Your task to perform on an android device: turn off priority inbox in the gmail app Image 0: 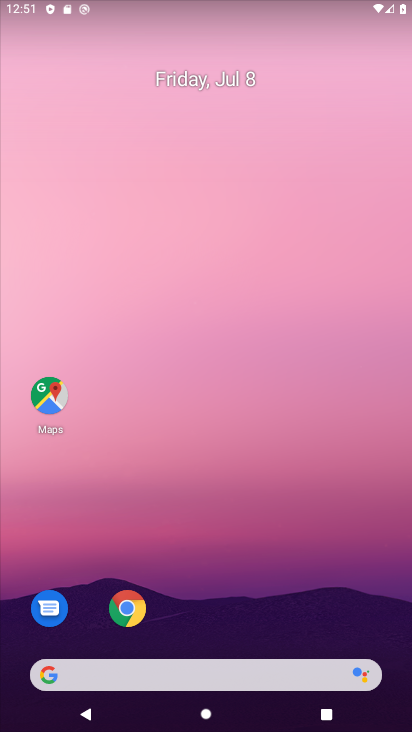
Step 0: drag from (238, 623) to (252, 117)
Your task to perform on an android device: turn off priority inbox in the gmail app Image 1: 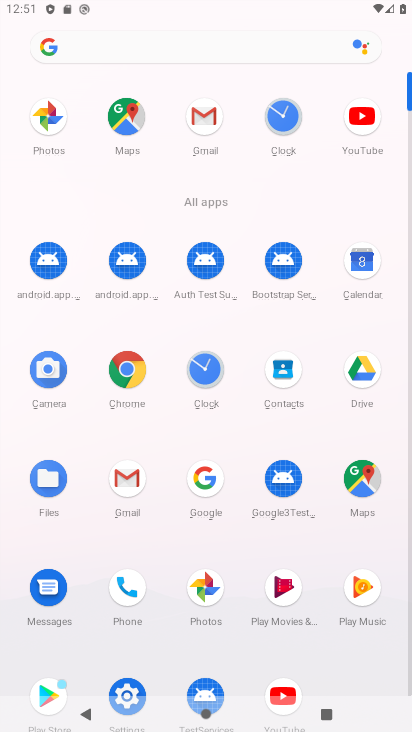
Step 1: click (209, 115)
Your task to perform on an android device: turn off priority inbox in the gmail app Image 2: 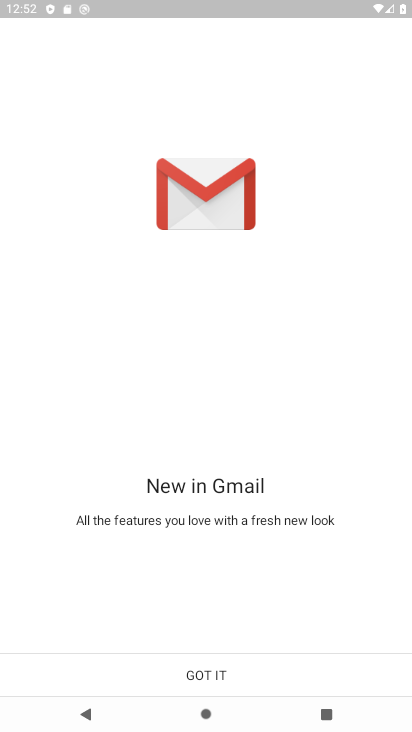
Step 2: click (193, 675)
Your task to perform on an android device: turn off priority inbox in the gmail app Image 3: 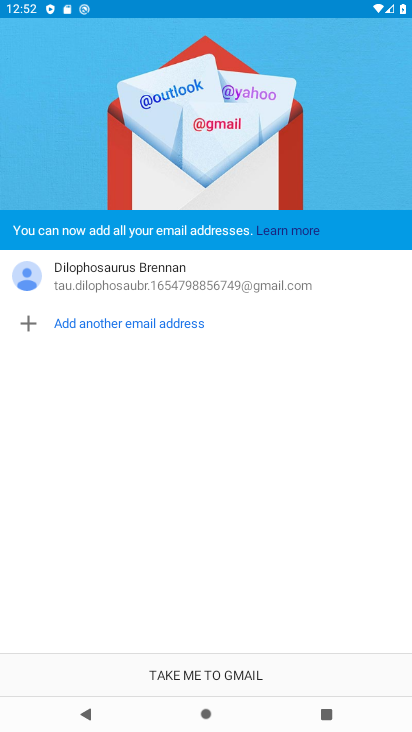
Step 3: click (212, 663)
Your task to perform on an android device: turn off priority inbox in the gmail app Image 4: 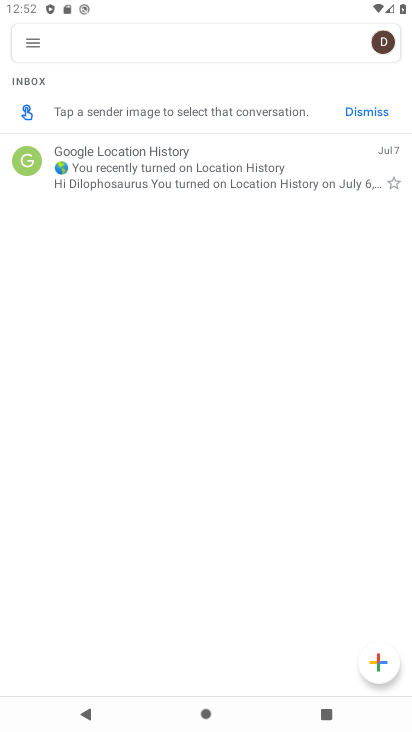
Step 4: click (30, 34)
Your task to perform on an android device: turn off priority inbox in the gmail app Image 5: 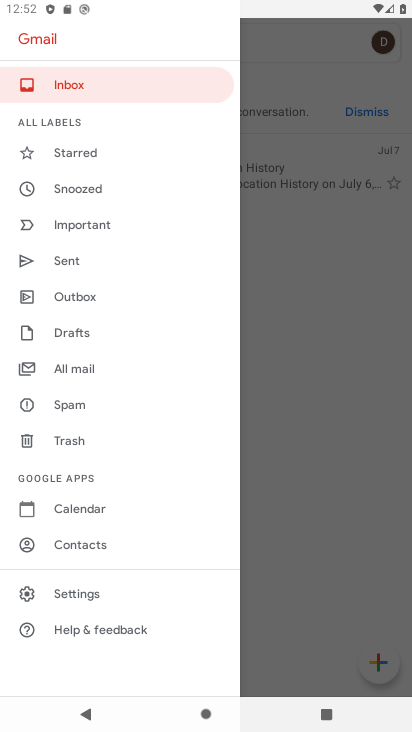
Step 5: click (121, 597)
Your task to perform on an android device: turn off priority inbox in the gmail app Image 6: 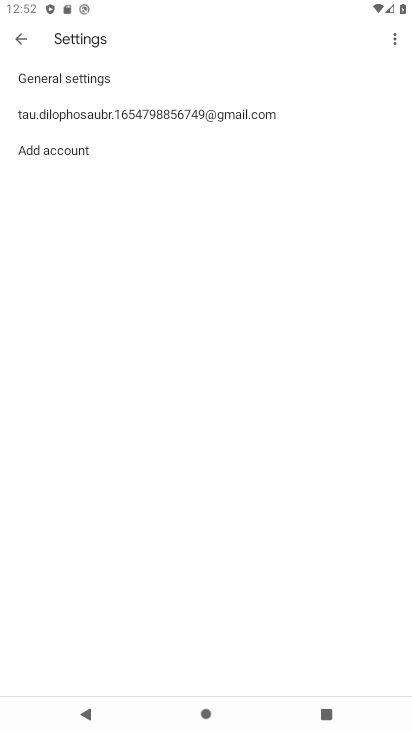
Step 6: click (86, 106)
Your task to perform on an android device: turn off priority inbox in the gmail app Image 7: 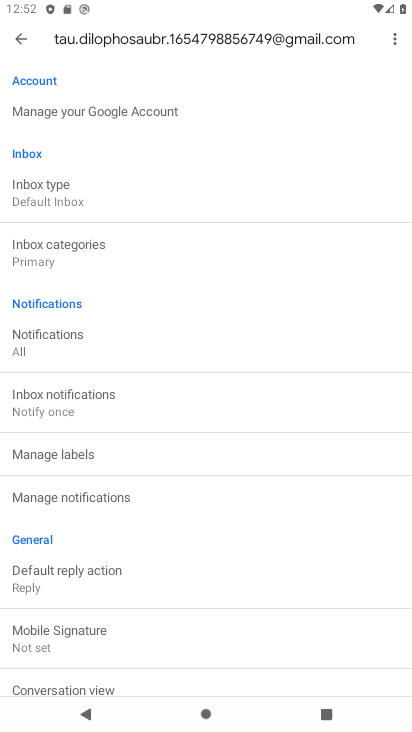
Step 7: click (47, 199)
Your task to perform on an android device: turn off priority inbox in the gmail app Image 8: 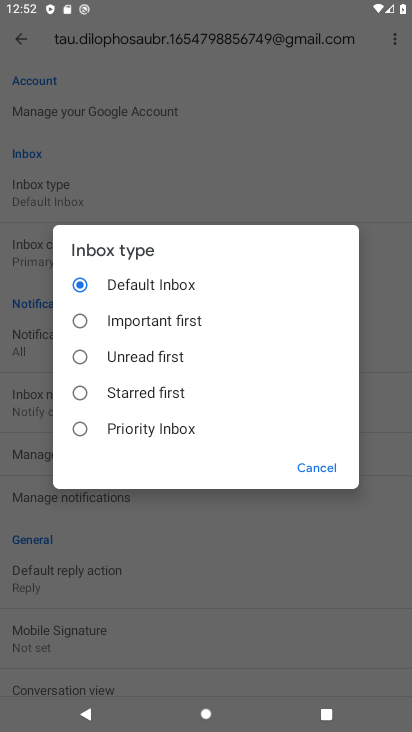
Step 8: task complete